Your task to perform on an android device: change timer sound Image 0: 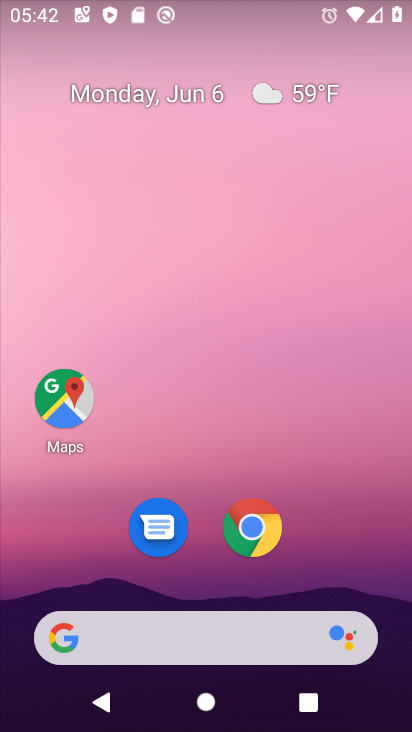
Step 0: drag from (393, 699) to (360, 52)
Your task to perform on an android device: change timer sound Image 1: 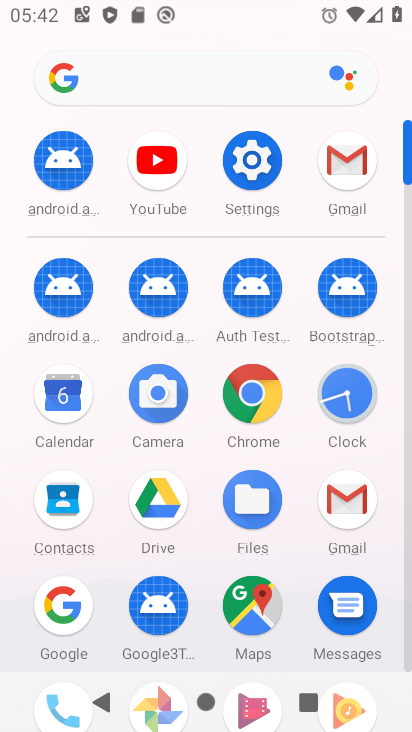
Step 1: click (328, 400)
Your task to perform on an android device: change timer sound Image 2: 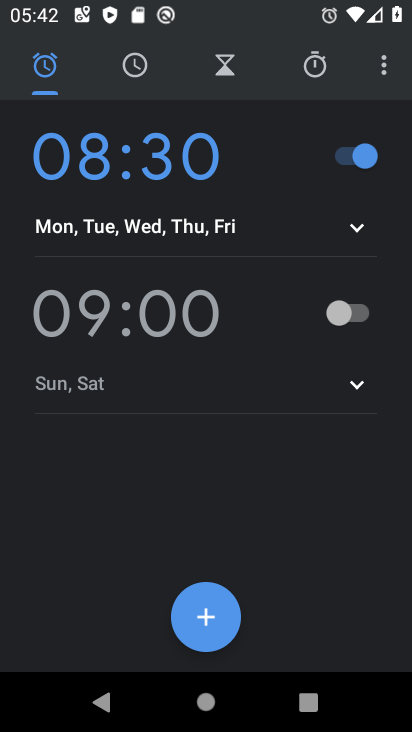
Step 2: click (382, 57)
Your task to perform on an android device: change timer sound Image 3: 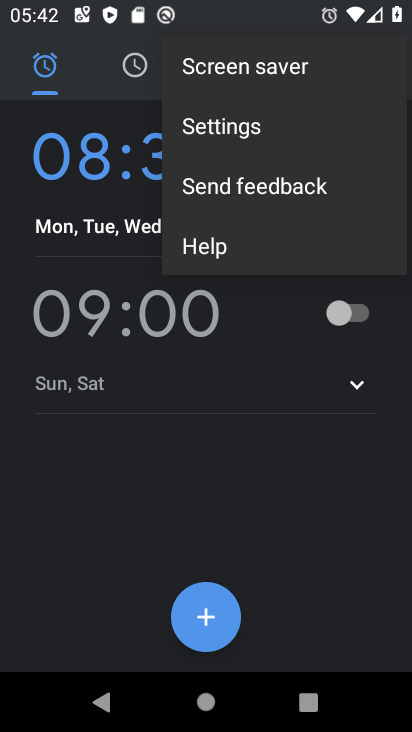
Step 3: click (248, 128)
Your task to perform on an android device: change timer sound Image 4: 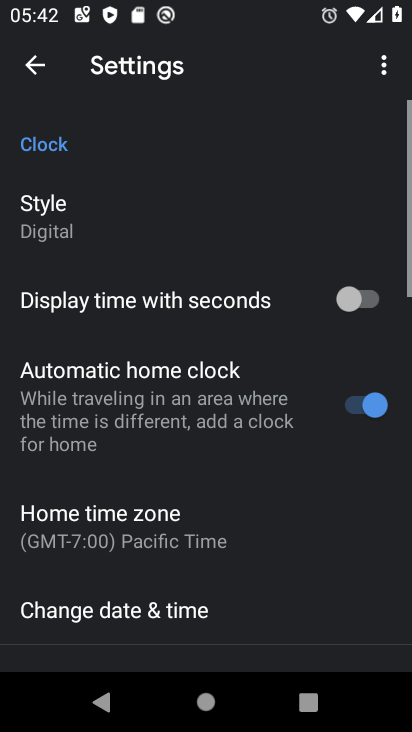
Step 4: drag from (315, 571) to (251, 99)
Your task to perform on an android device: change timer sound Image 5: 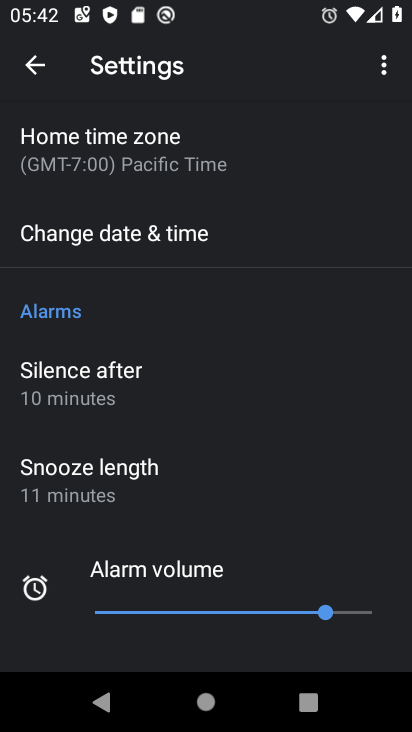
Step 5: drag from (254, 470) to (243, 148)
Your task to perform on an android device: change timer sound Image 6: 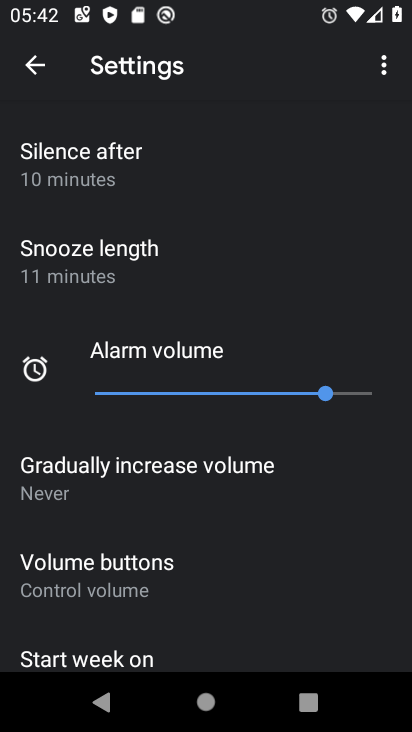
Step 6: drag from (242, 528) to (227, 161)
Your task to perform on an android device: change timer sound Image 7: 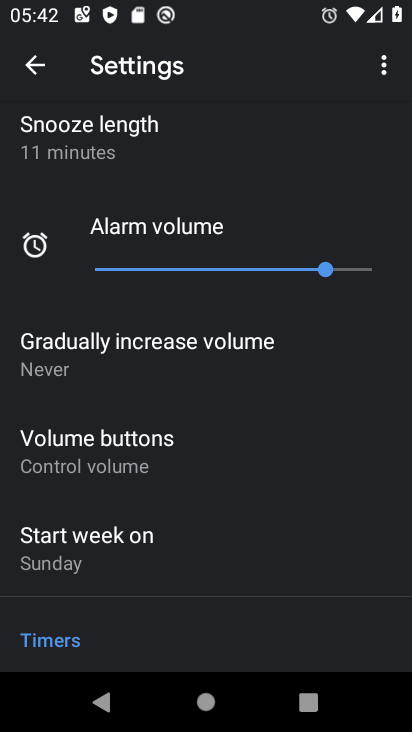
Step 7: drag from (172, 628) to (175, 357)
Your task to perform on an android device: change timer sound Image 8: 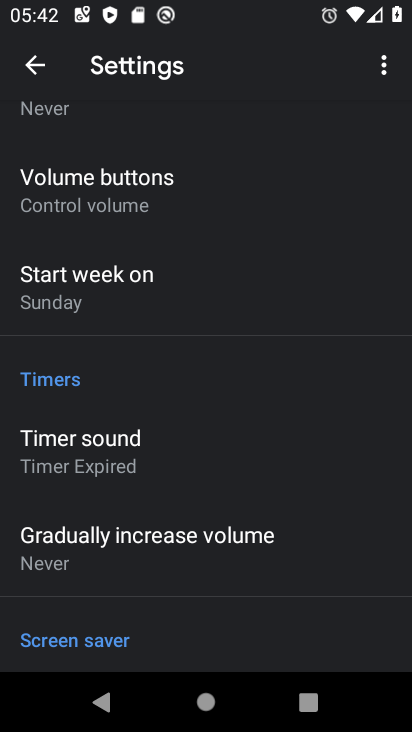
Step 8: click (71, 447)
Your task to perform on an android device: change timer sound Image 9: 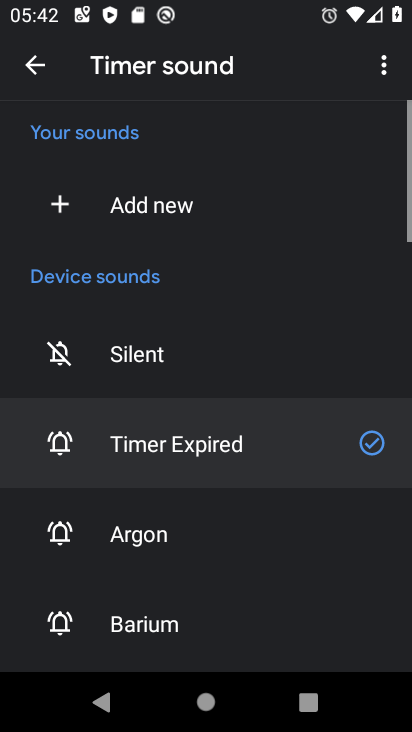
Step 9: click (130, 537)
Your task to perform on an android device: change timer sound Image 10: 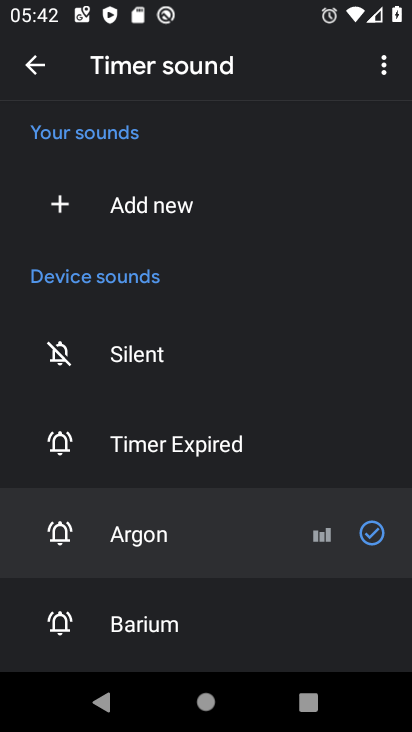
Step 10: task complete